Your task to perform on an android device: Check the weather Image 0: 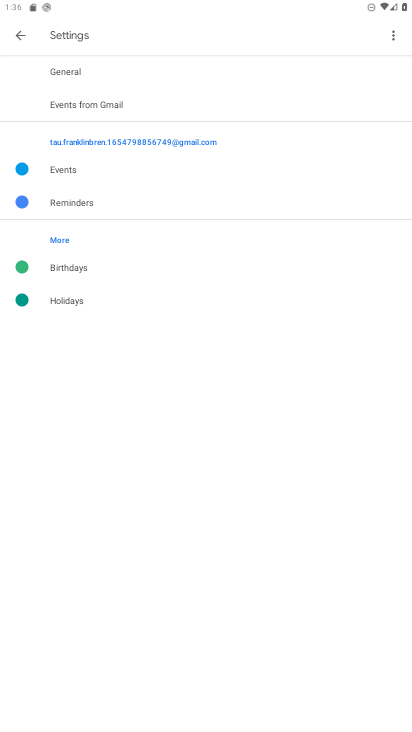
Step 0: press home button
Your task to perform on an android device: Check the weather Image 1: 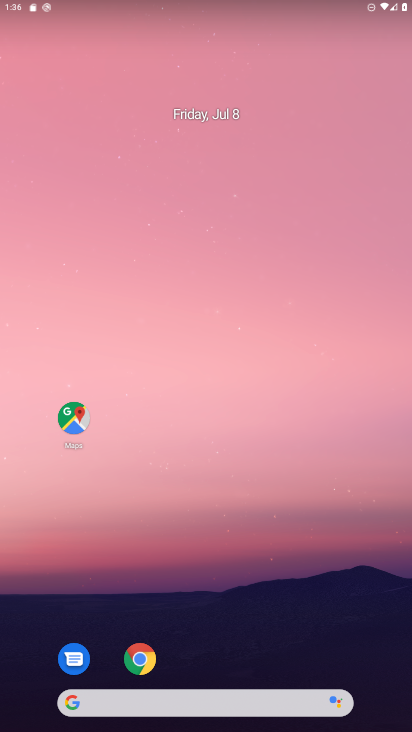
Step 1: drag from (230, 655) to (238, 156)
Your task to perform on an android device: Check the weather Image 2: 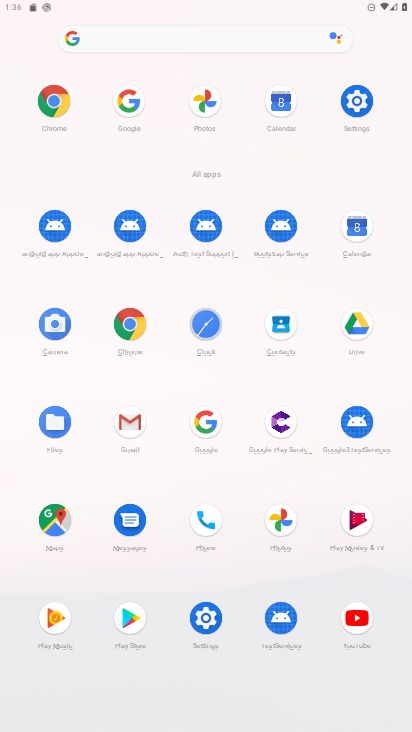
Step 2: click (205, 420)
Your task to perform on an android device: Check the weather Image 3: 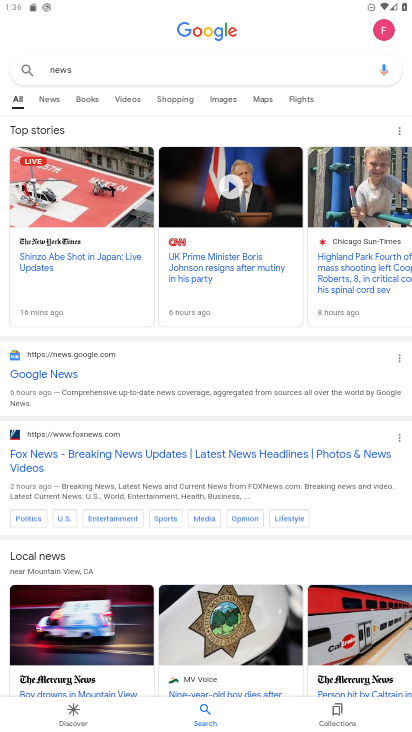
Step 3: click (115, 69)
Your task to perform on an android device: Check the weather Image 4: 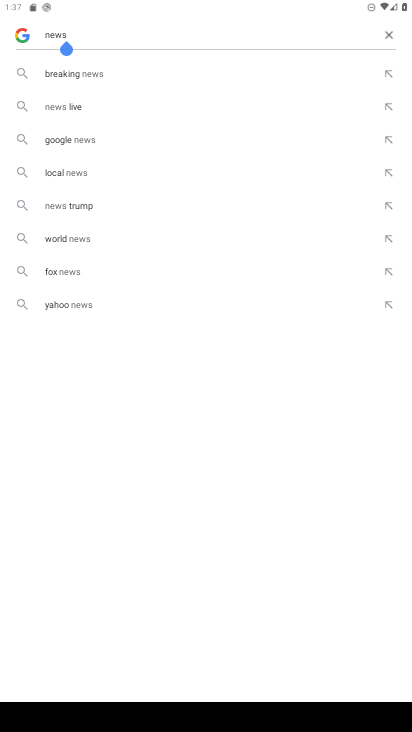
Step 4: click (387, 34)
Your task to perform on an android device: Check the weather Image 5: 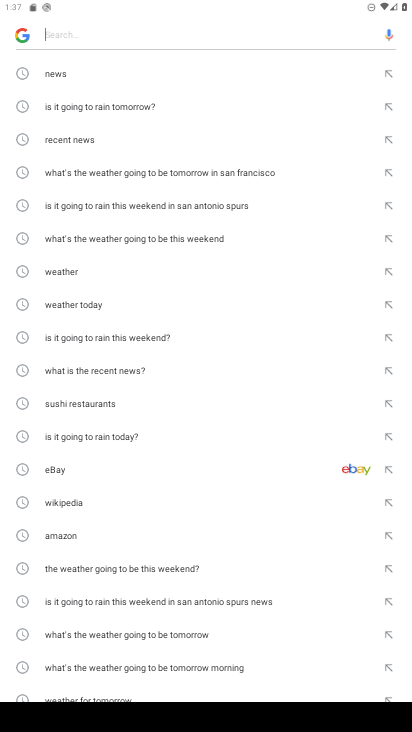
Step 5: type "weather"
Your task to perform on an android device: Check the weather Image 6: 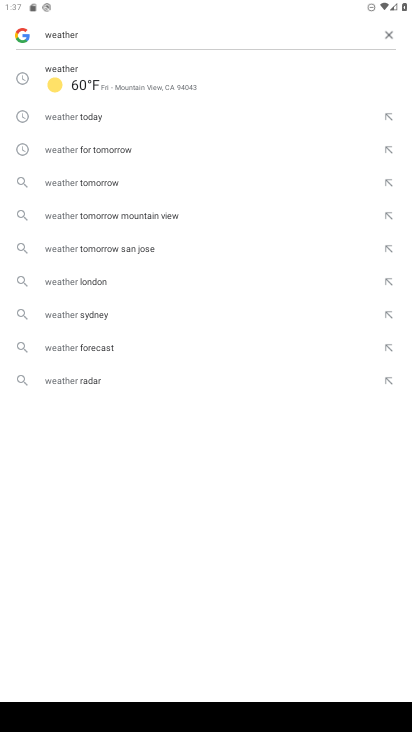
Step 6: click (120, 85)
Your task to perform on an android device: Check the weather Image 7: 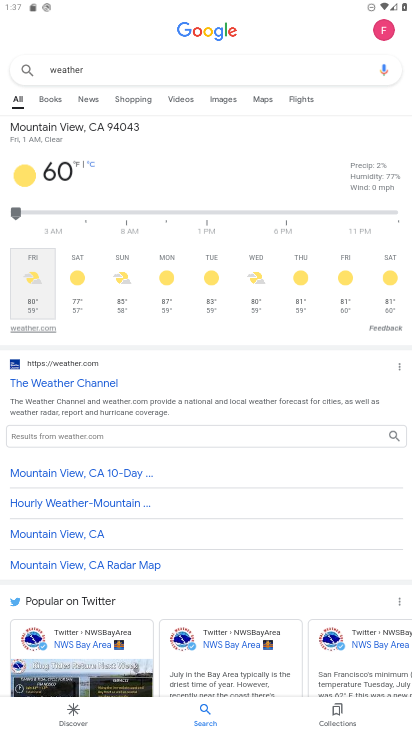
Step 7: task complete